Your task to perform on an android device: choose inbox layout in the gmail app Image 0: 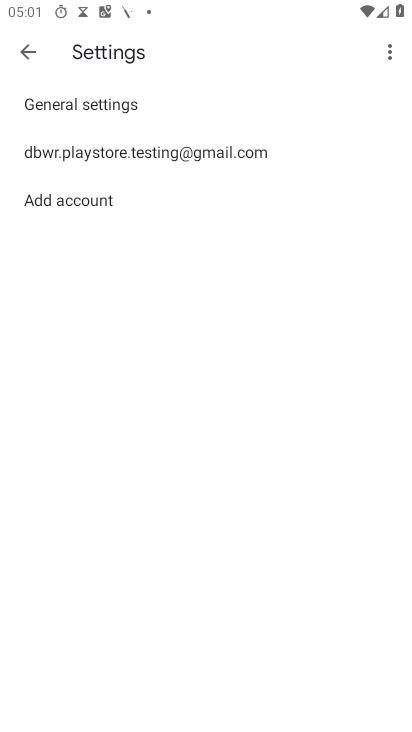
Step 0: press home button
Your task to perform on an android device: choose inbox layout in the gmail app Image 1: 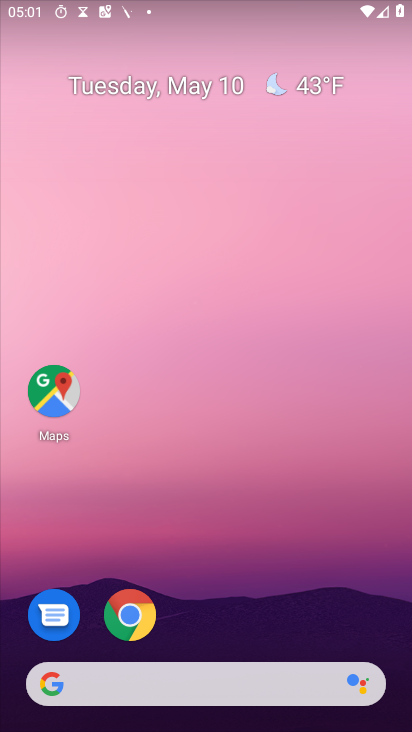
Step 1: drag from (247, 627) to (283, 72)
Your task to perform on an android device: choose inbox layout in the gmail app Image 2: 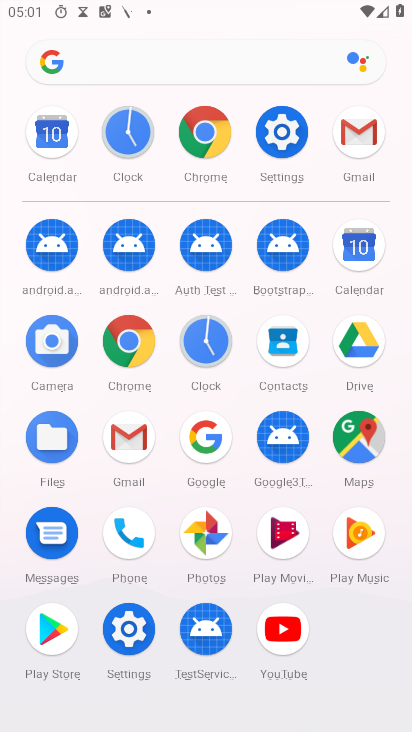
Step 2: click (135, 456)
Your task to perform on an android device: choose inbox layout in the gmail app Image 3: 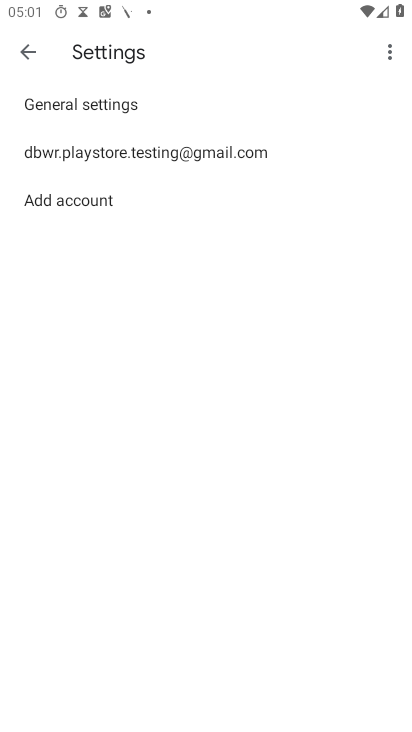
Step 3: press back button
Your task to perform on an android device: choose inbox layout in the gmail app Image 4: 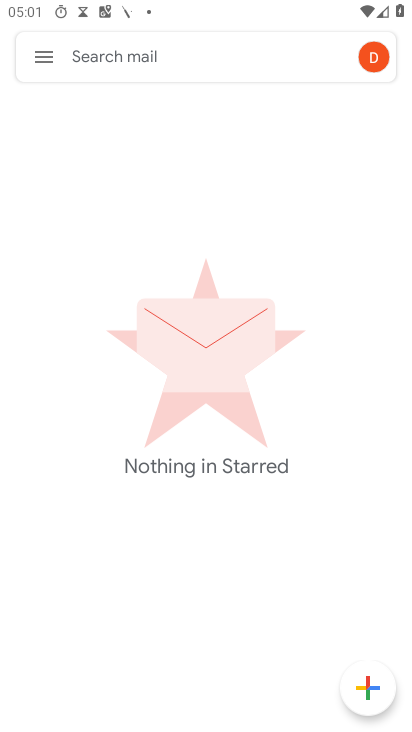
Step 4: click (49, 54)
Your task to perform on an android device: choose inbox layout in the gmail app Image 5: 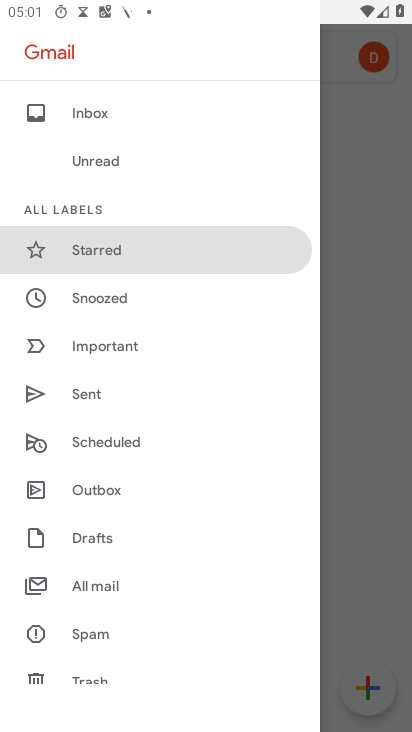
Step 5: drag from (172, 650) to (200, 178)
Your task to perform on an android device: choose inbox layout in the gmail app Image 6: 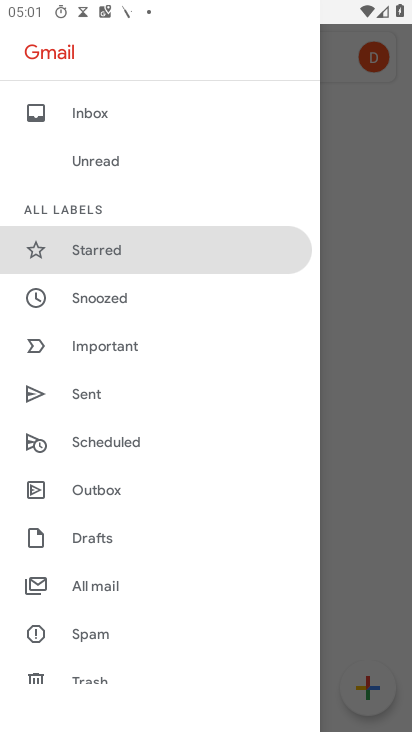
Step 6: drag from (171, 634) to (205, 261)
Your task to perform on an android device: choose inbox layout in the gmail app Image 7: 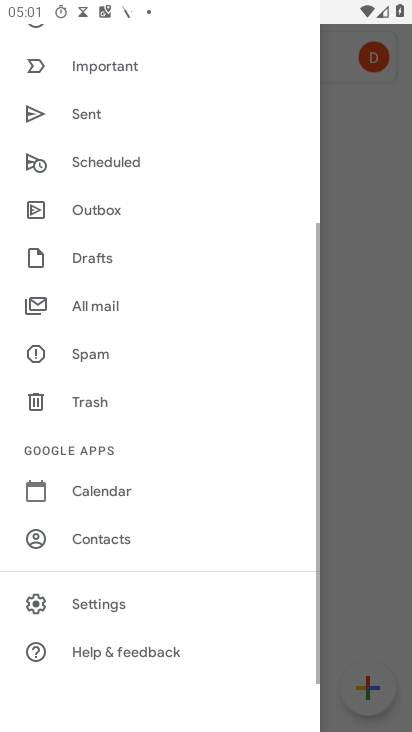
Step 7: click (125, 608)
Your task to perform on an android device: choose inbox layout in the gmail app Image 8: 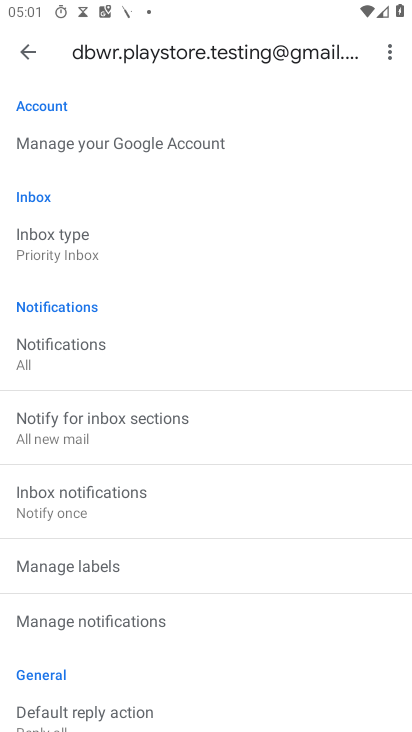
Step 8: drag from (228, 684) to (309, 149)
Your task to perform on an android device: choose inbox layout in the gmail app Image 9: 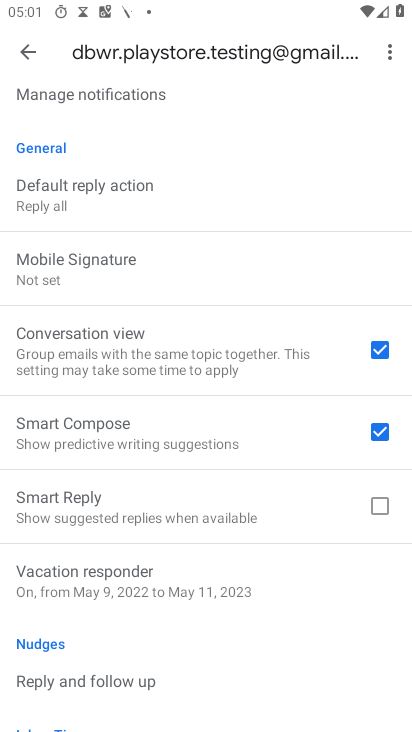
Step 9: drag from (255, 648) to (293, 252)
Your task to perform on an android device: choose inbox layout in the gmail app Image 10: 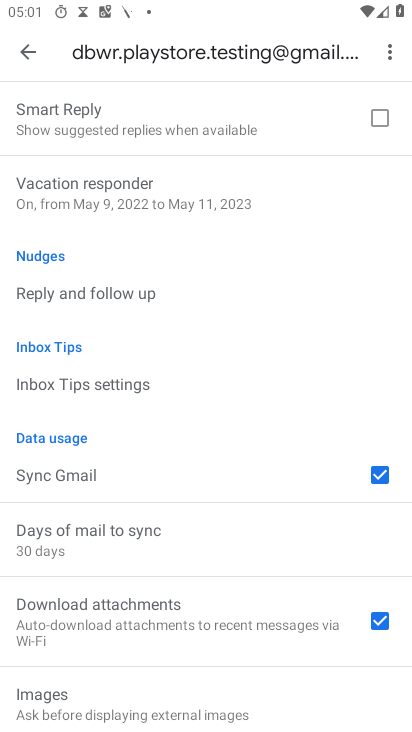
Step 10: drag from (292, 213) to (239, 720)
Your task to perform on an android device: choose inbox layout in the gmail app Image 11: 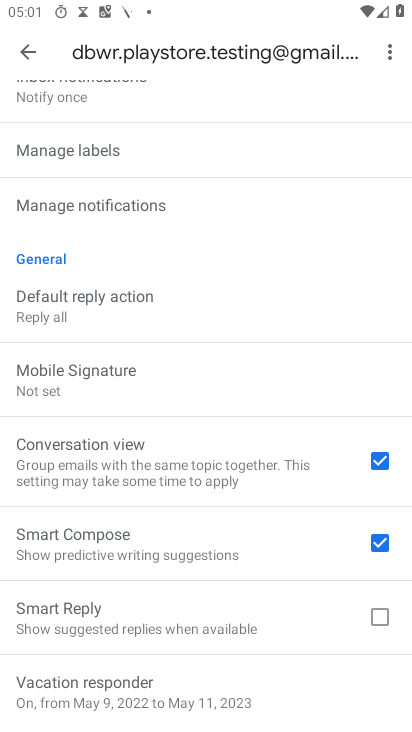
Step 11: drag from (199, 228) to (166, 674)
Your task to perform on an android device: choose inbox layout in the gmail app Image 12: 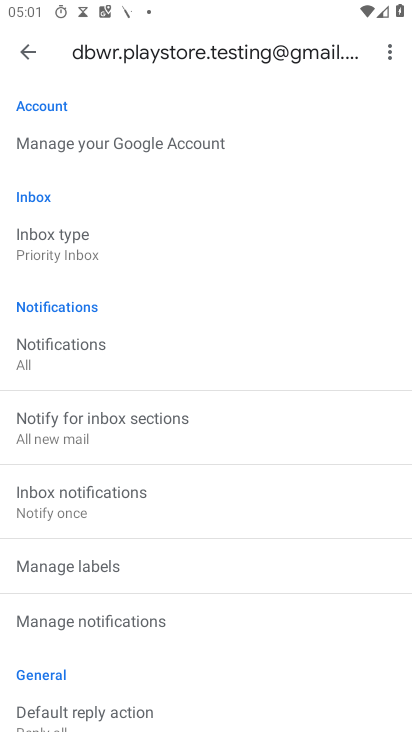
Step 12: click (150, 242)
Your task to perform on an android device: choose inbox layout in the gmail app Image 13: 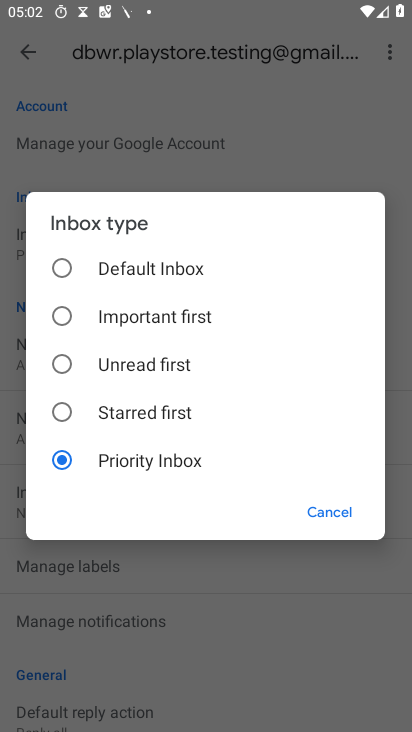
Step 13: click (60, 364)
Your task to perform on an android device: choose inbox layout in the gmail app Image 14: 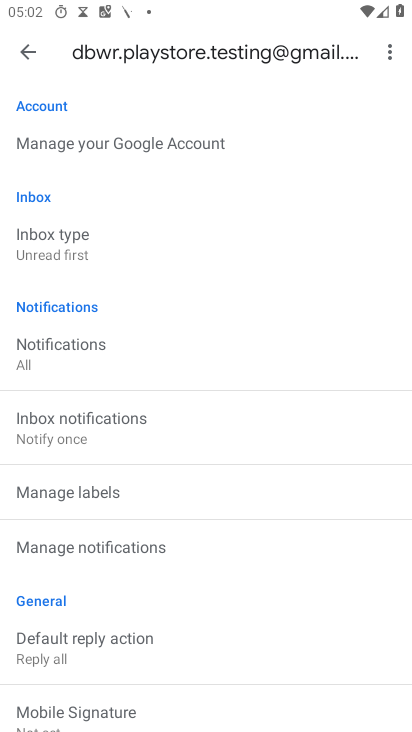
Step 14: task complete